Your task to perform on an android device: Go to ESPN.com Image 0: 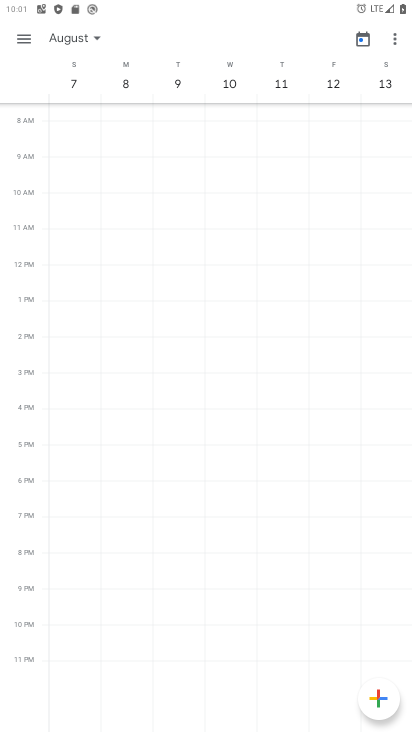
Step 0: press home button
Your task to perform on an android device: Go to ESPN.com Image 1: 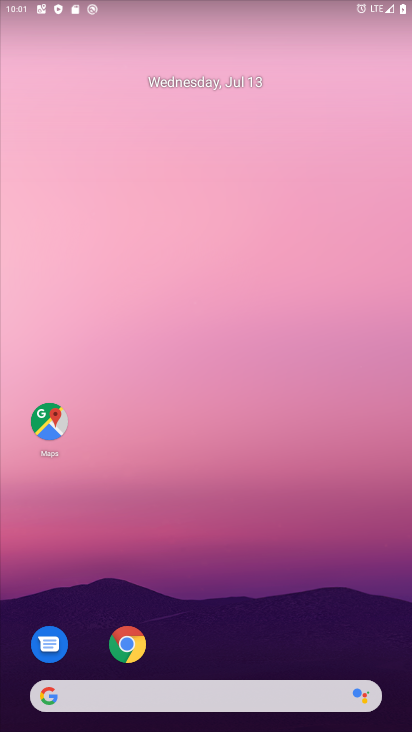
Step 1: drag from (218, 718) to (216, 244)
Your task to perform on an android device: Go to ESPN.com Image 2: 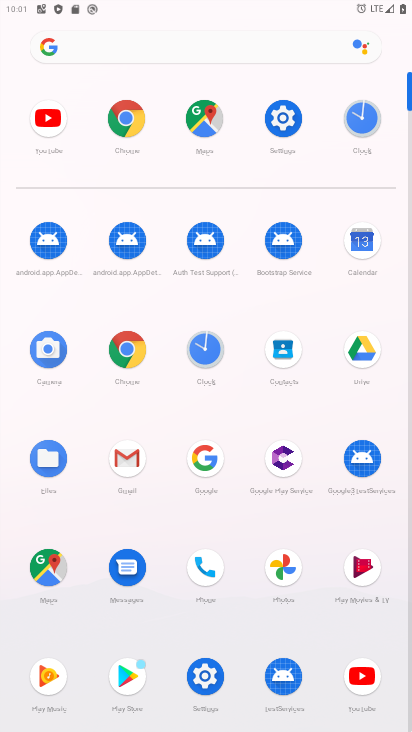
Step 2: click (130, 121)
Your task to perform on an android device: Go to ESPN.com Image 3: 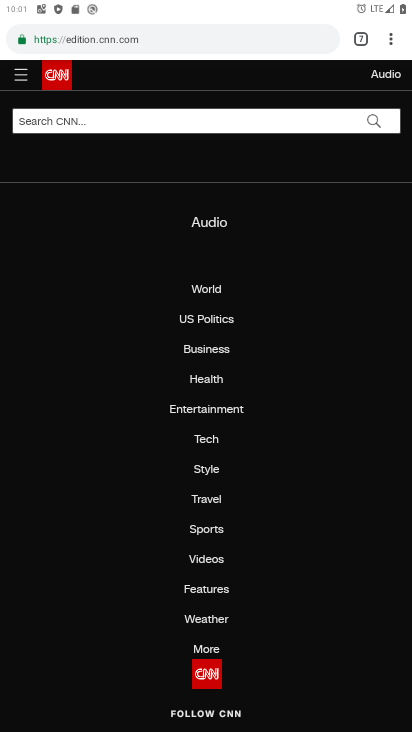
Step 3: click (393, 43)
Your task to perform on an android device: Go to ESPN.com Image 4: 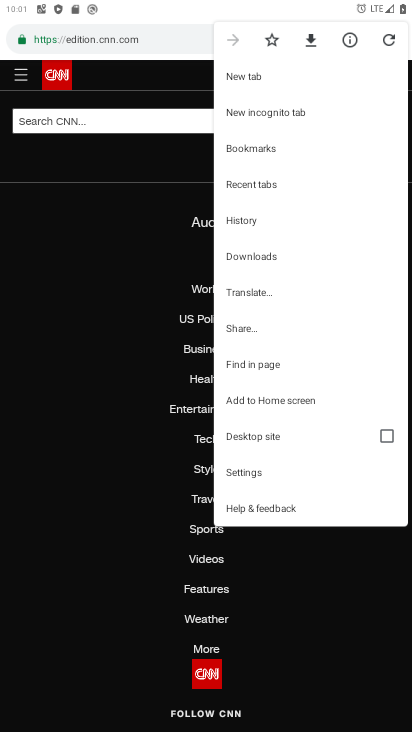
Step 4: click (250, 72)
Your task to perform on an android device: Go to ESPN.com Image 5: 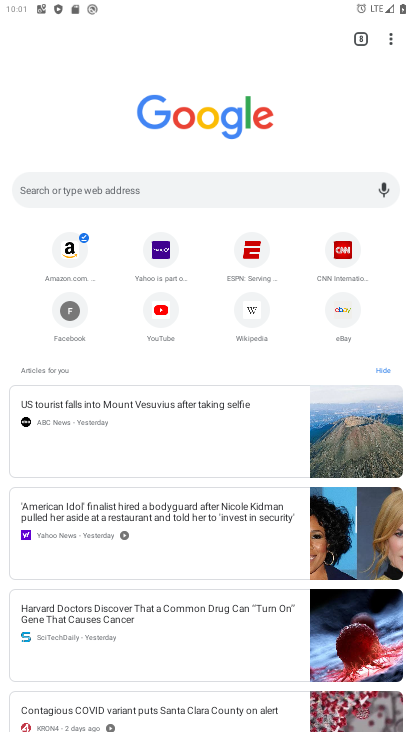
Step 5: click (251, 249)
Your task to perform on an android device: Go to ESPN.com Image 6: 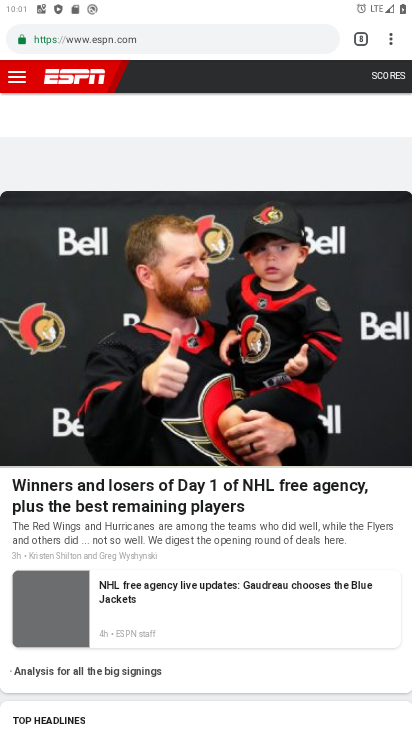
Step 6: task complete